Your task to perform on an android device: Do I have any events today? Image 0: 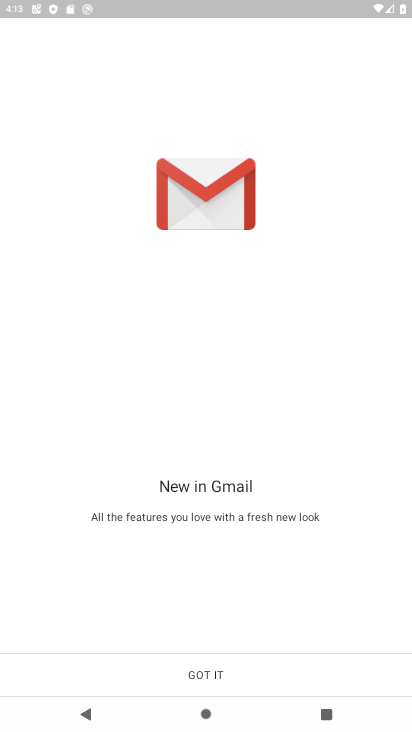
Step 0: press home button
Your task to perform on an android device: Do I have any events today? Image 1: 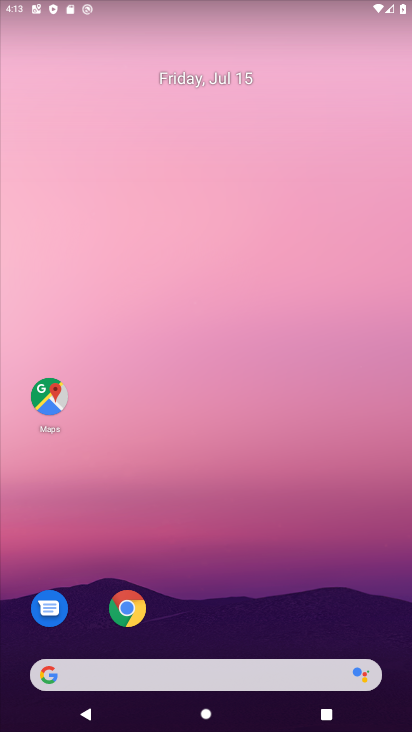
Step 1: drag from (283, 612) to (308, 33)
Your task to perform on an android device: Do I have any events today? Image 2: 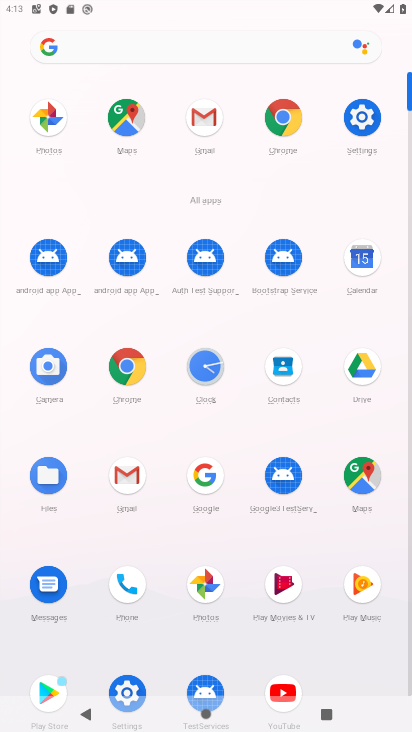
Step 2: click (374, 258)
Your task to perform on an android device: Do I have any events today? Image 3: 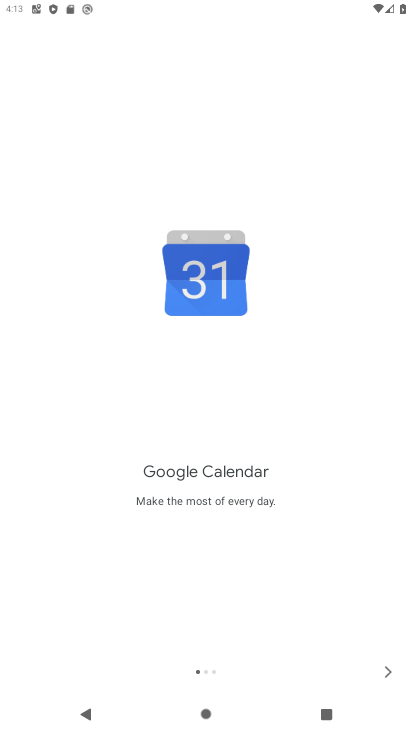
Step 3: click (388, 668)
Your task to perform on an android device: Do I have any events today? Image 4: 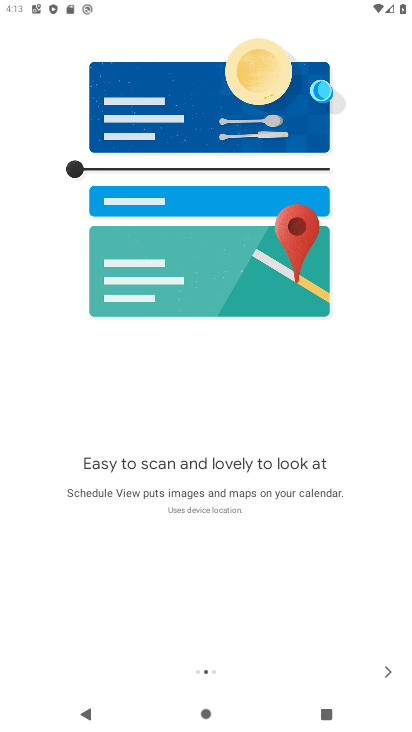
Step 4: click (381, 669)
Your task to perform on an android device: Do I have any events today? Image 5: 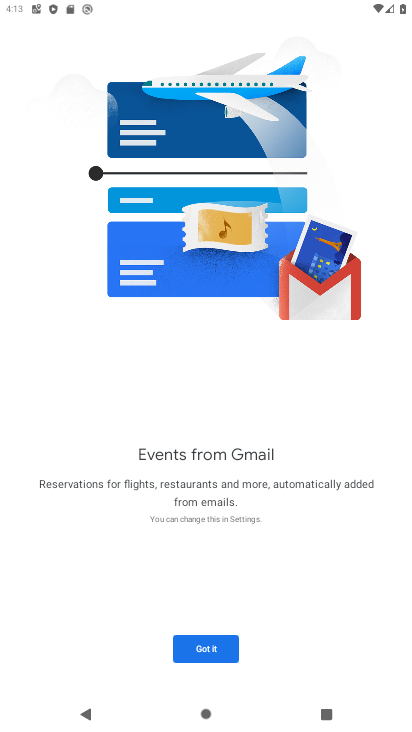
Step 5: click (205, 643)
Your task to perform on an android device: Do I have any events today? Image 6: 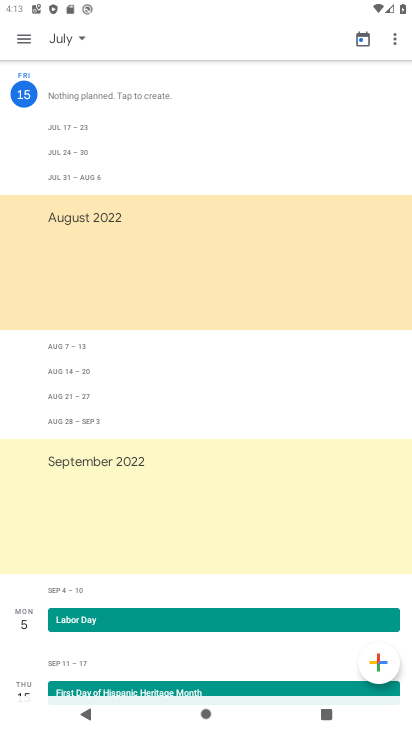
Step 6: click (9, 36)
Your task to perform on an android device: Do I have any events today? Image 7: 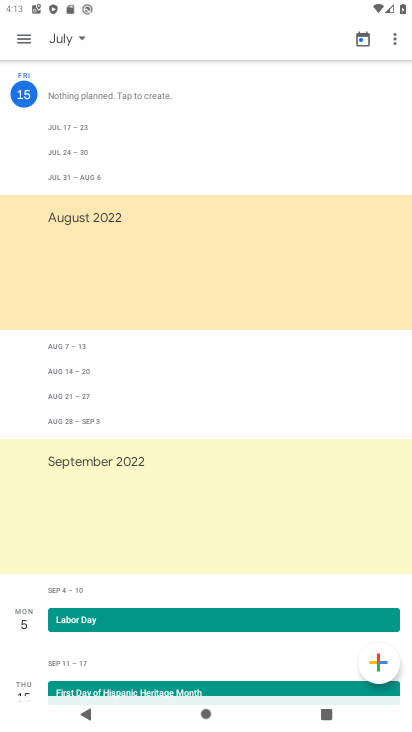
Step 7: click (27, 41)
Your task to perform on an android device: Do I have any events today? Image 8: 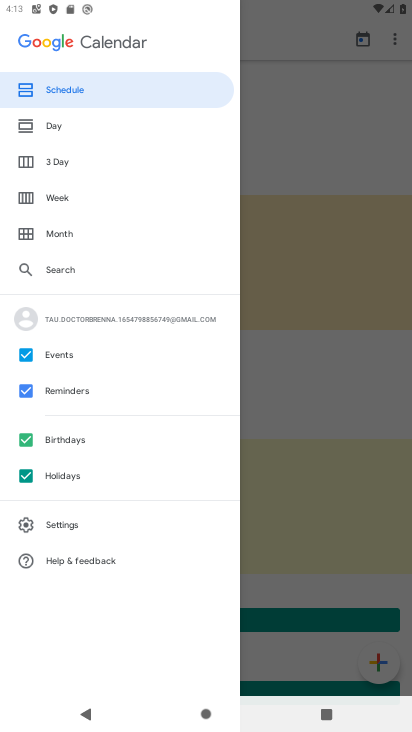
Step 8: click (74, 389)
Your task to perform on an android device: Do I have any events today? Image 9: 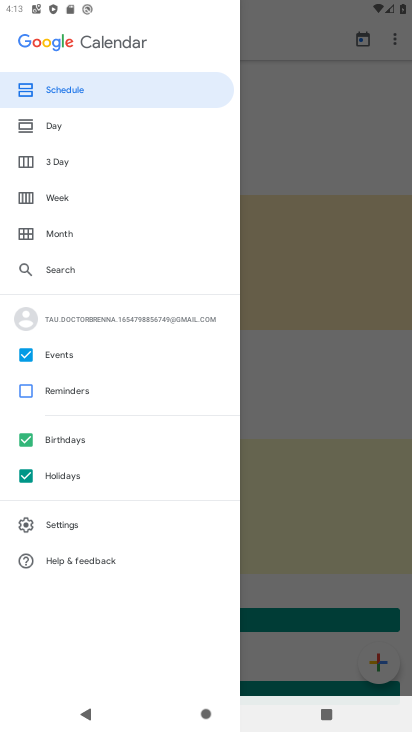
Step 9: click (72, 434)
Your task to perform on an android device: Do I have any events today? Image 10: 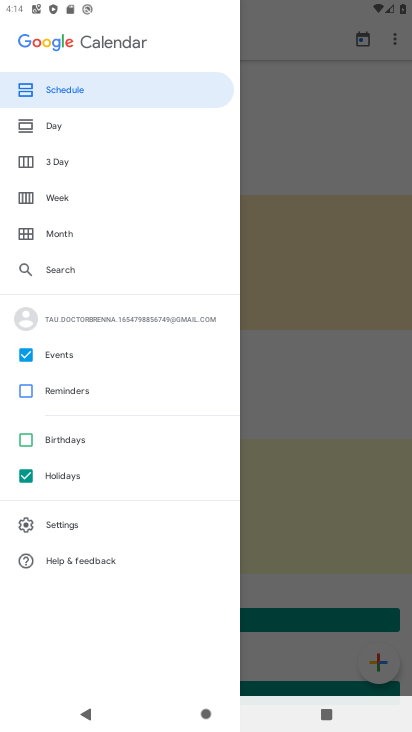
Step 10: click (58, 476)
Your task to perform on an android device: Do I have any events today? Image 11: 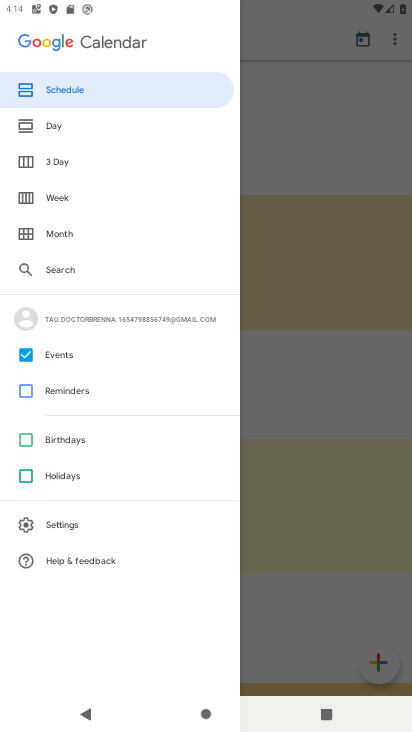
Step 11: click (58, 129)
Your task to perform on an android device: Do I have any events today? Image 12: 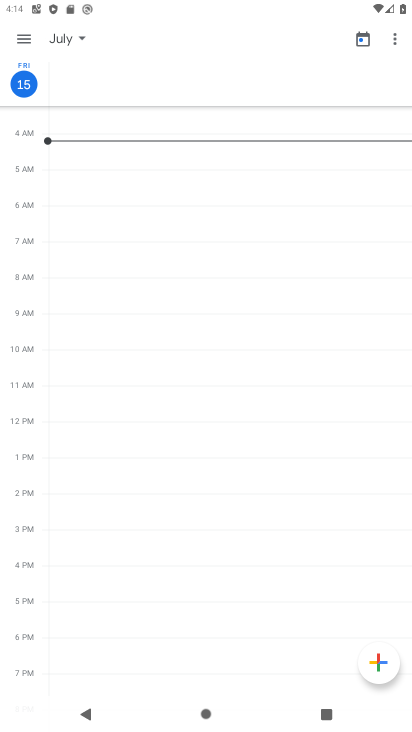
Step 12: task complete